Your task to perform on an android device: toggle wifi Image 0: 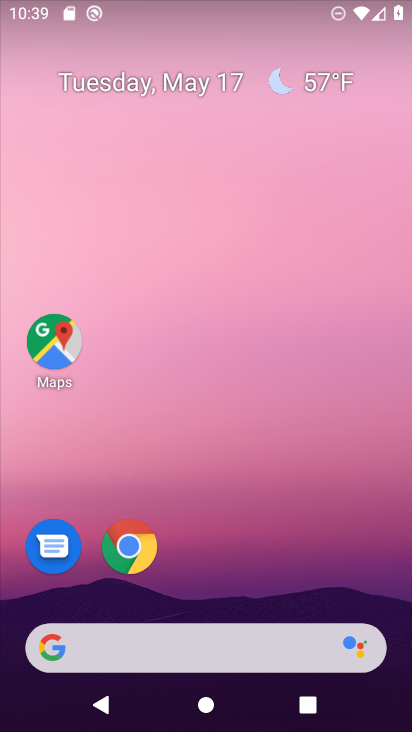
Step 0: drag from (311, 596) to (297, 10)
Your task to perform on an android device: toggle wifi Image 1: 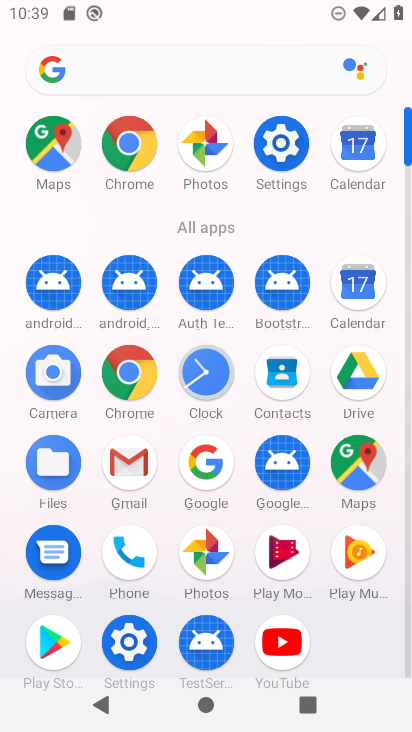
Step 1: click (278, 146)
Your task to perform on an android device: toggle wifi Image 2: 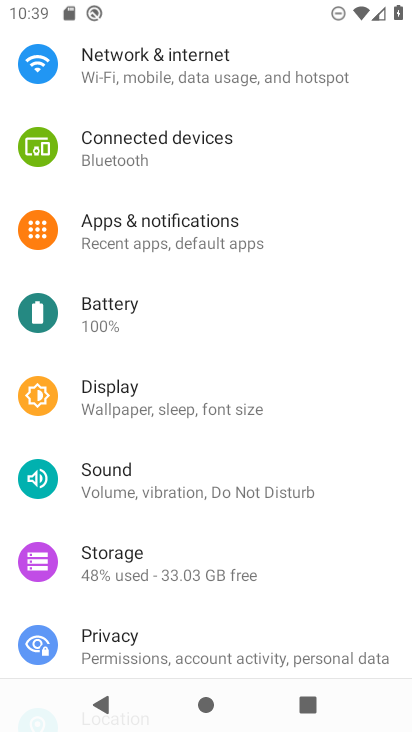
Step 2: click (159, 89)
Your task to perform on an android device: toggle wifi Image 3: 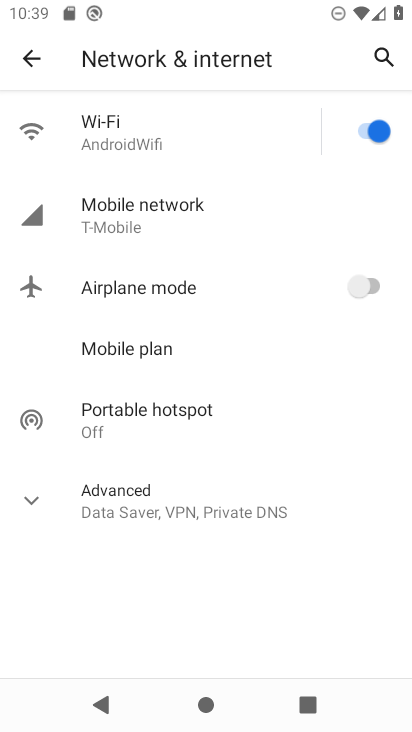
Step 3: click (375, 128)
Your task to perform on an android device: toggle wifi Image 4: 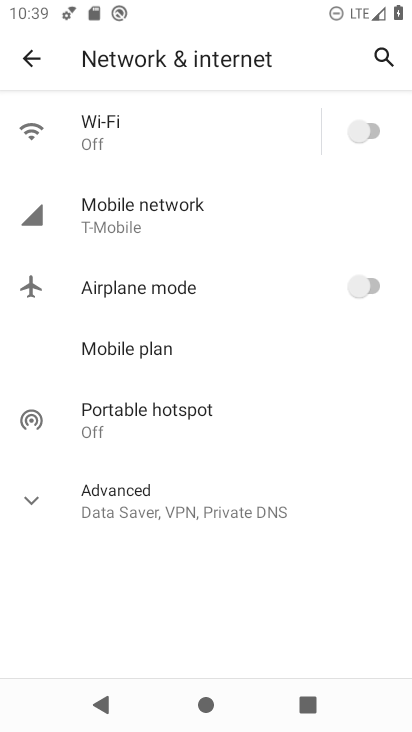
Step 4: task complete